Your task to perform on an android device: Show me recent news Image 0: 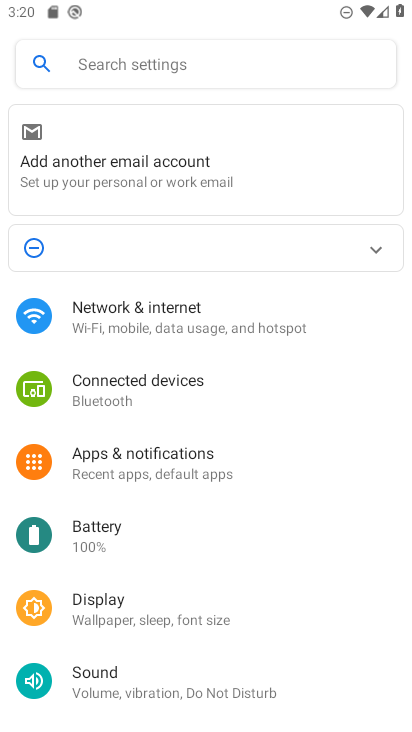
Step 0: press home button
Your task to perform on an android device: Show me recent news Image 1: 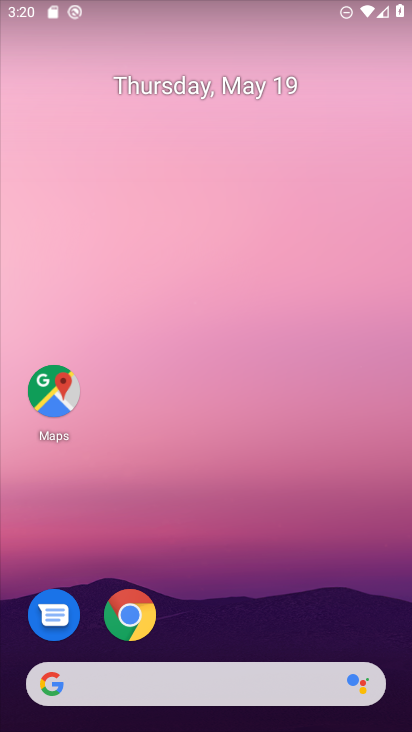
Step 1: click (279, 683)
Your task to perform on an android device: Show me recent news Image 2: 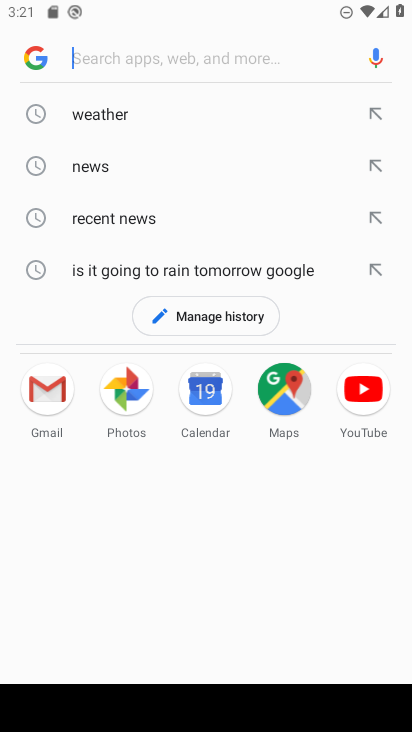
Step 2: click (223, 66)
Your task to perform on an android device: Show me recent news Image 3: 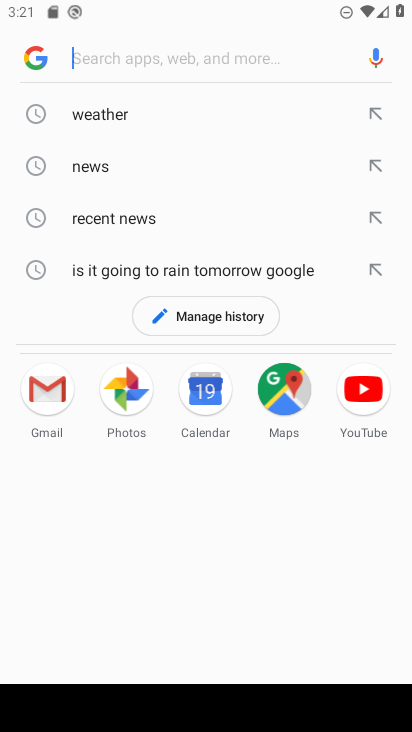
Step 3: click (152, 226)
Your task to perform on an android device: Show me recent news Image 4: 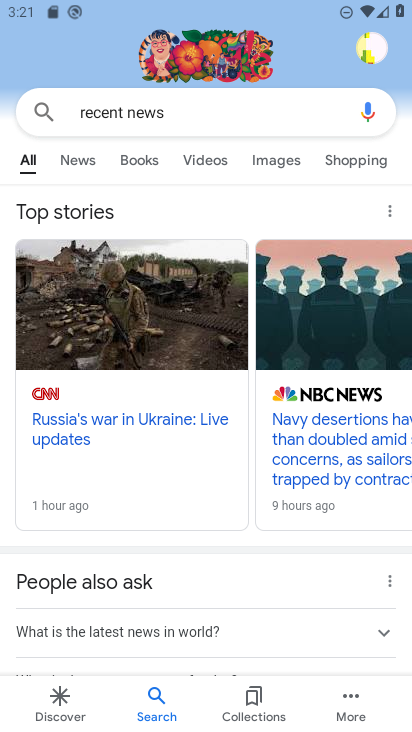
Step 4: task complete